Your task to perform on an android device: Search for vegetarian restaurants on Maps Image 0: 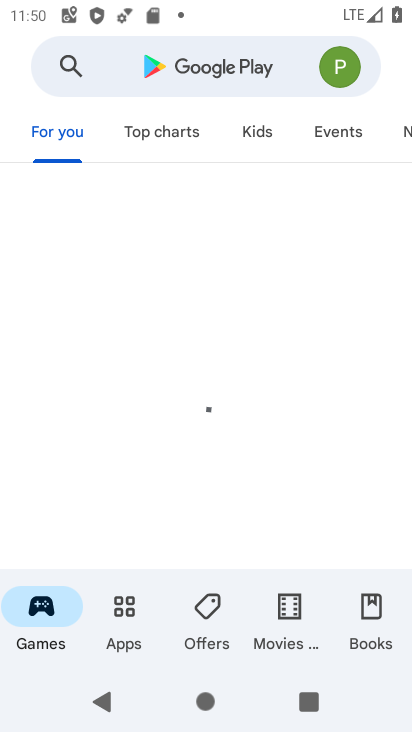
Step 0: press home button
Your task to perform on an android device: Search for vegetarian restaurants on Maps Image 1: 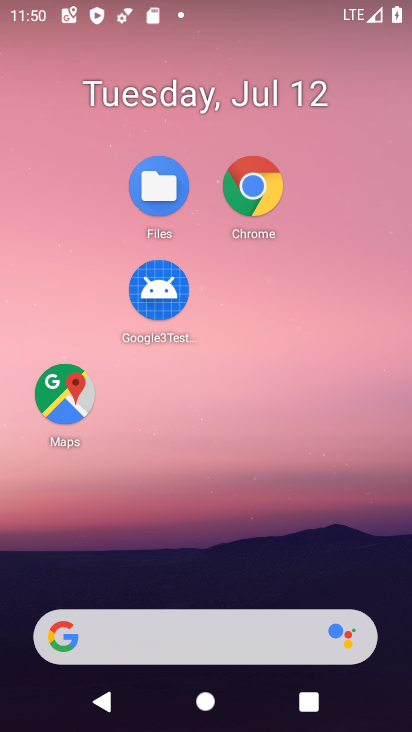
Step 1: click (51, 371)
Your task to perform on an android device: Search for vegetarian restaurants on Maps Image 2: 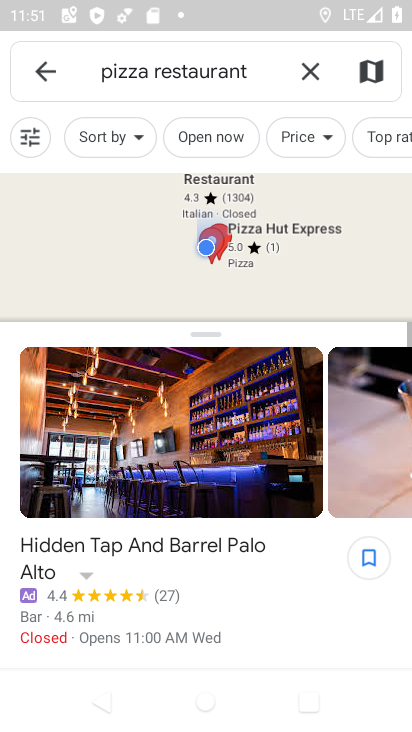
Step 2: click (312, 57)
Your task to perform on an android device: Search for vegetarian restaurants on Maps Image 3: 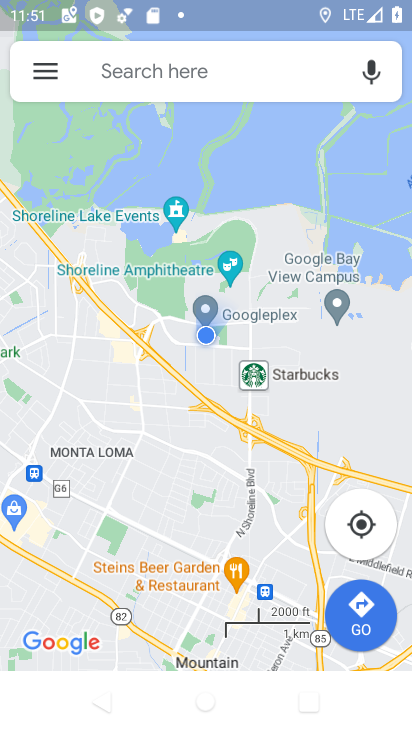
Step 3: click (241, 103)
Your task to perform on an android device: Search for vegetarian restaurants on Maps Image 4: 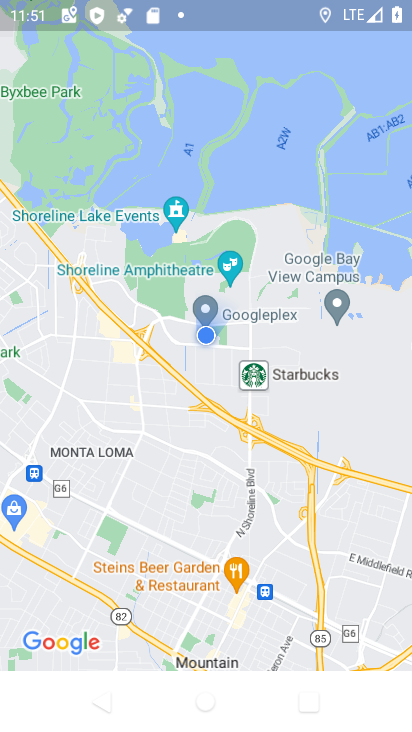
Step 4: press back button
Your task to perform on an android device: Search for vegetarian restaurants on Maps Image 5: 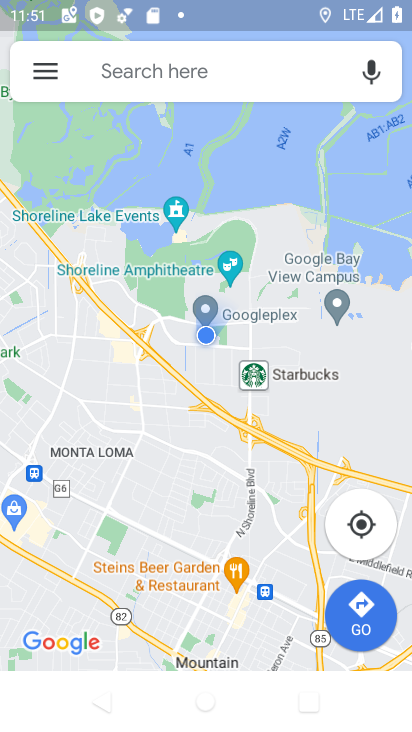
Step 5: click (265, 86)
Your task to perform on an android device: Search for vegetarian restaurants on Maps Image 6: 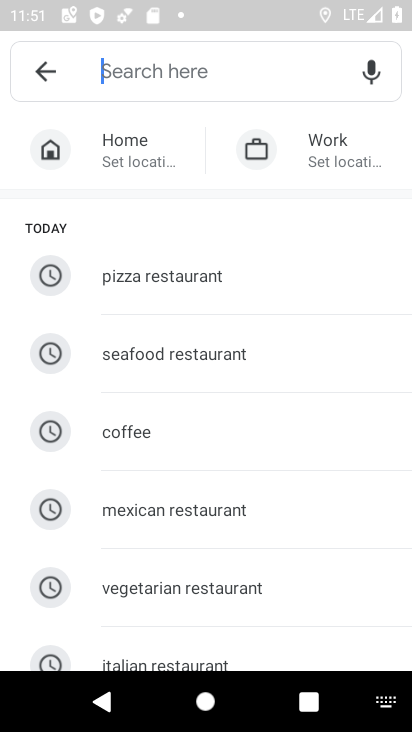
Step 6: click (185, 569)
Your task to perform on an android device: Search for vegetarian restaurants on Maps Image 7: 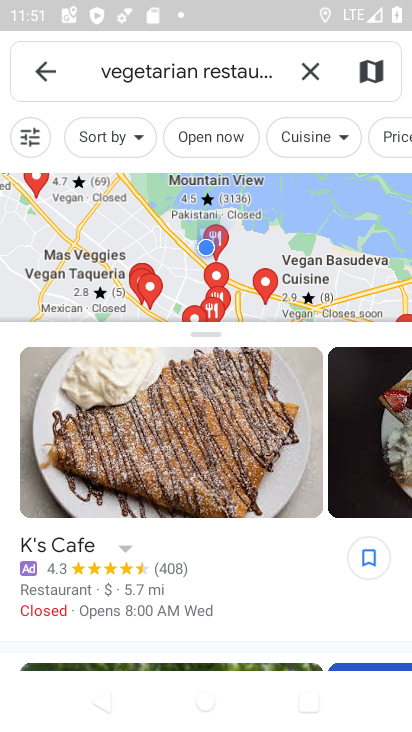
Step 7: task complete